Your task to perform on an android device: change the clock display to digital Image 0: 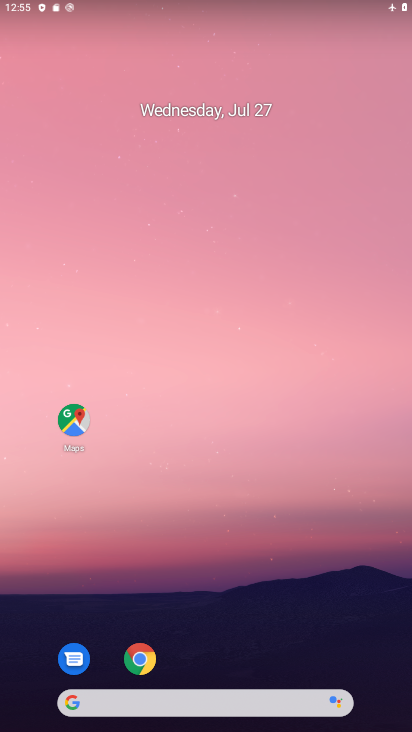
Step 0: drag from (285, 654) to (283, 115)
Your task to perform on an android device: change the clock display to digital Image 1: 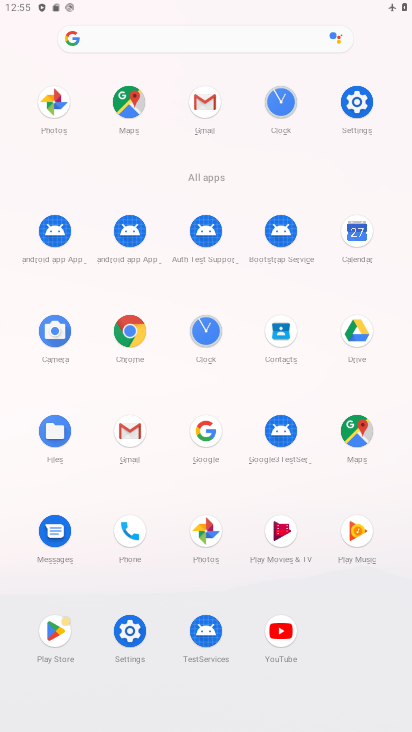
Step 1: click (217, 326)
Your task to perform on an android device: change the clock display to digital Image 2: 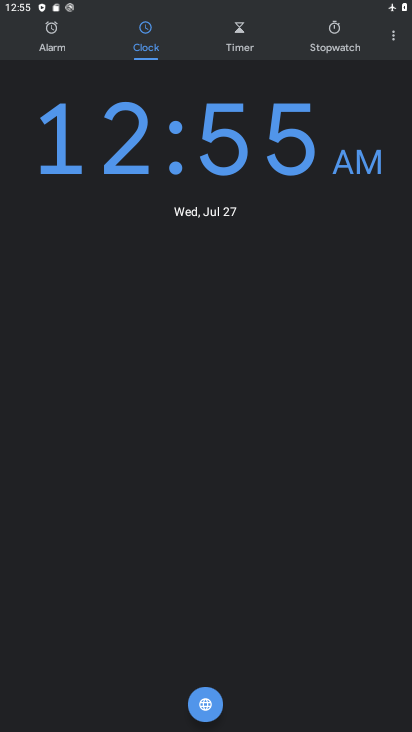
Step 2: click (396, 44)
Your task to perform on an android device: change the clock display to digital Image 3: 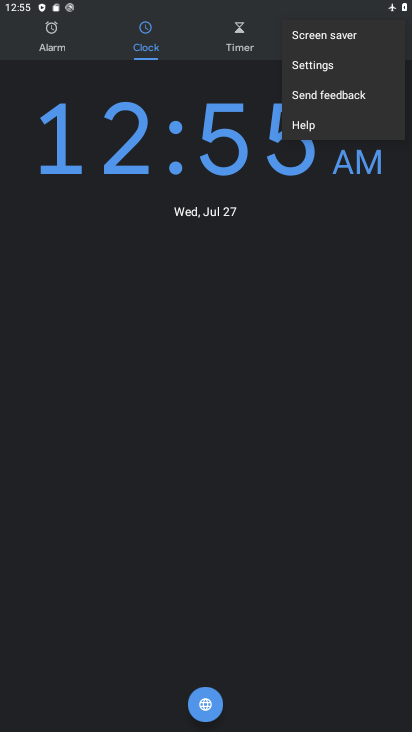
Step 3: click (313, 73)
Your task to perform on an android device: change the clock display to digital Image 4: 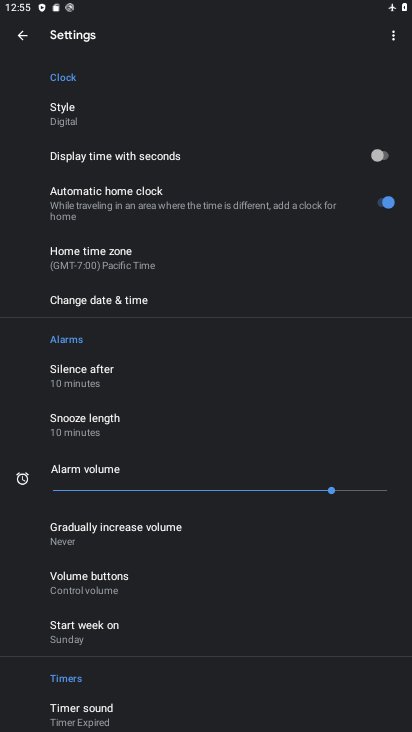
Step 4: click (99, 104)
Your task to perform on an android device: change the clock display to digital Image 5: 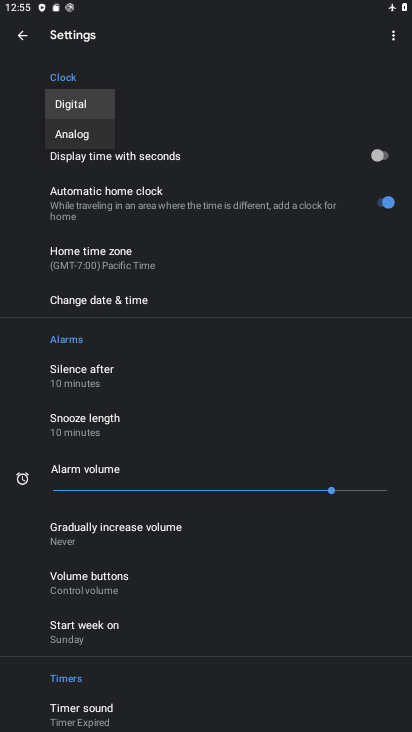
Step 5: click (92, 146)
Your task to perform on an android device: change the clock display to digital Image 6: 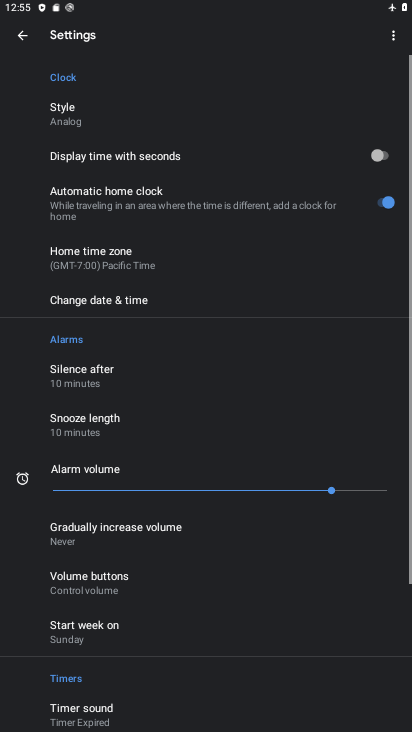
Step 6: task complete